Your task to perform on an android device: Open ESPN.com Image 0: 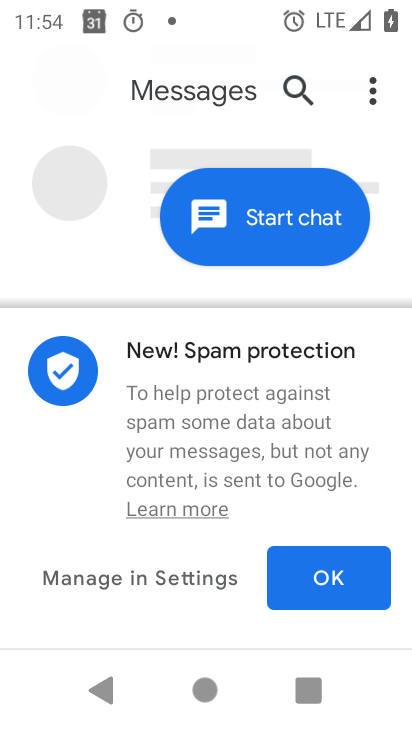
Step 0: drag from (316, 570) to (406, 108)
Your task to perform on an android device: Open ESPN.com Image 1: 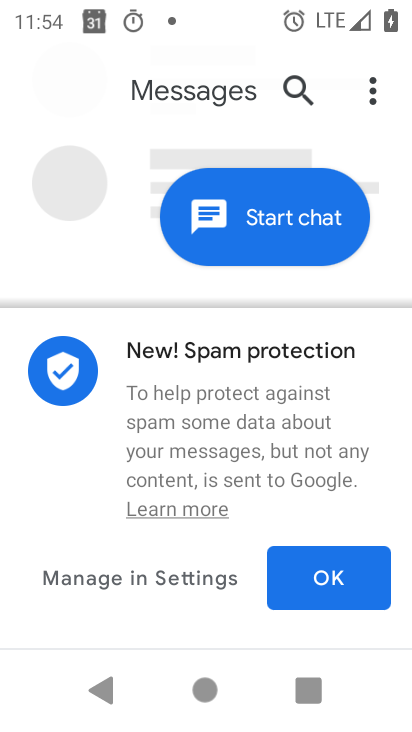
Step 1: press home button
Your task to perform on an android device: Open ESPN.com Image 2: 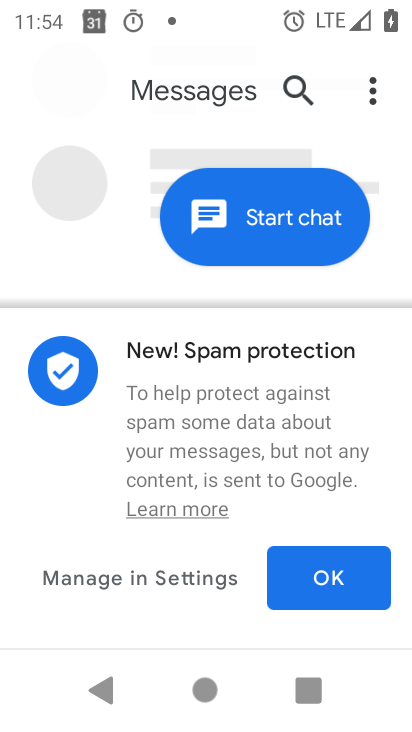
Step 2: drag from (406, 108) to (409, 556)
Your task to perform on an android device: Open ESPN.com Image 3: 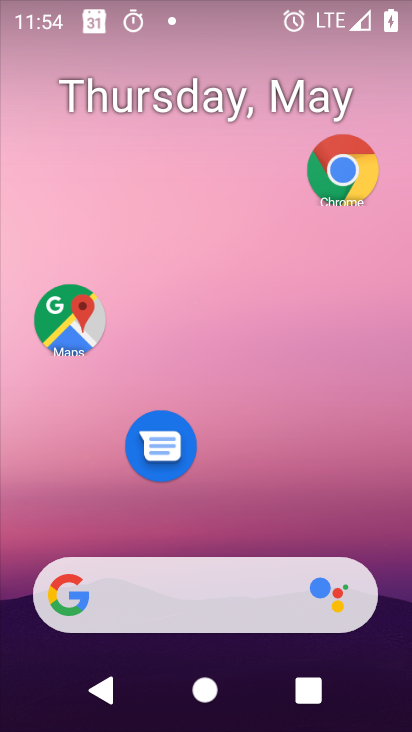
Step 3: drag from (321, 595) to (327, 0)
Your task to perform on an android device: Open ESPN.com Image 4: 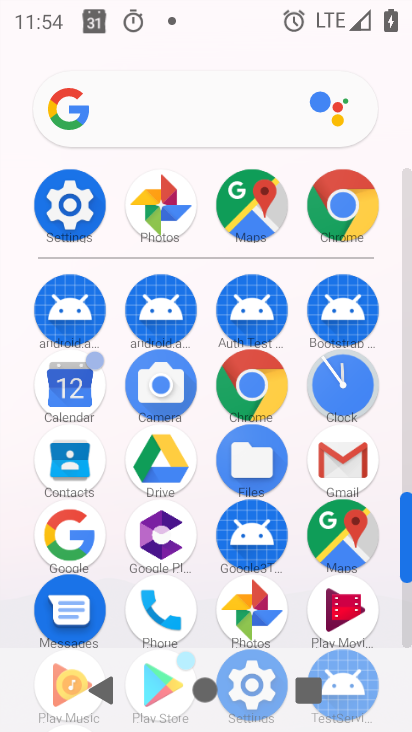
Step 4: click (248, 384)
Your task to perform on an android device: Open ESPN.com Image 5: 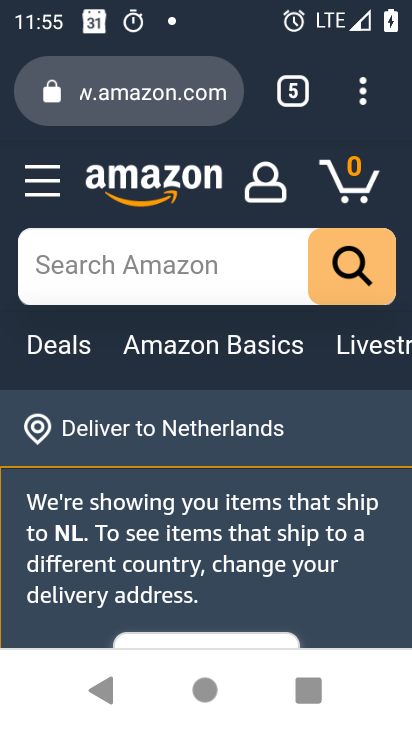
Step 5: click (203, 101)
Your task to perform on an android device: Open ESPN.com Image 6: 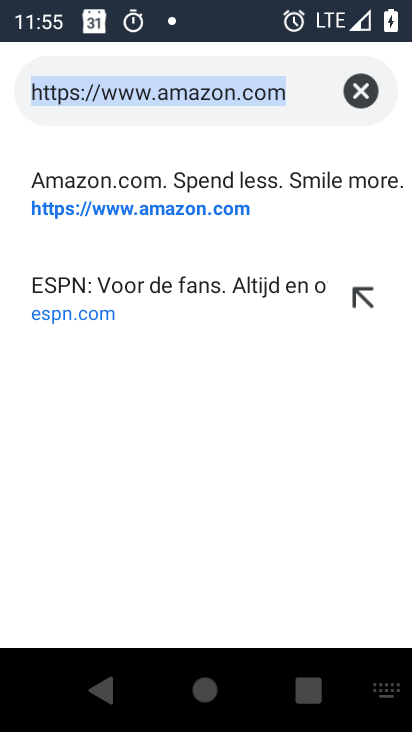
Step 6: click (348, 97)
Your task to perform on an android device: Open ESPN.com Image 7: 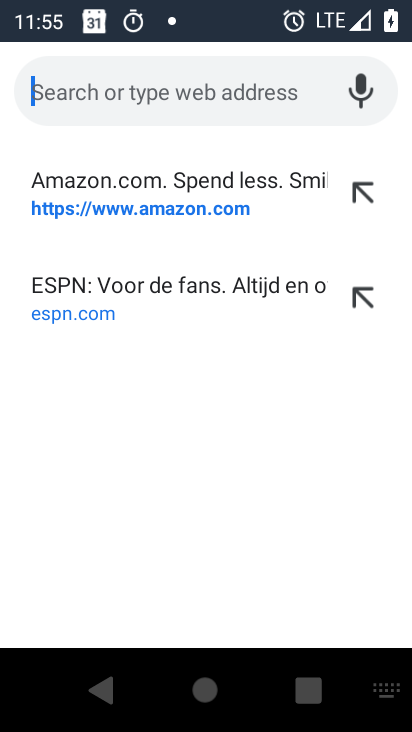
Step 7: click (257, 291)
Your task to perform on an android device: Open ESPN.com Image 8: 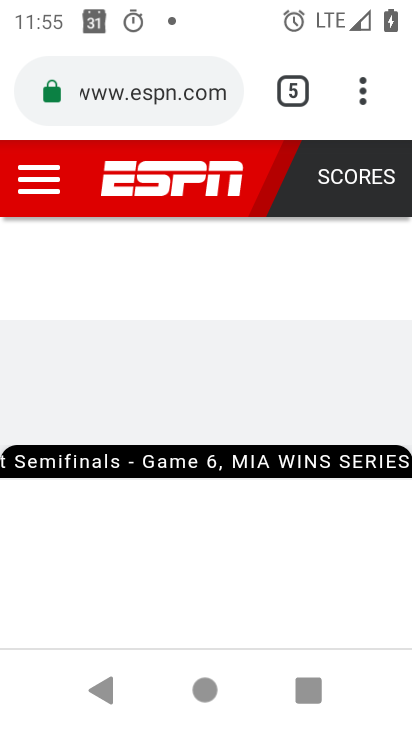
Step 8: task complete